Your task to perform on an android device: Go to location settings Image 0: 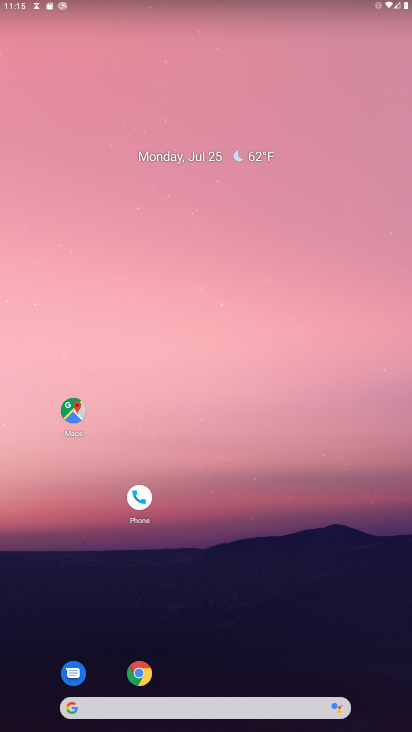
Step 0: press home button
Your task to perform on an android device: Go to location settings Image 1: 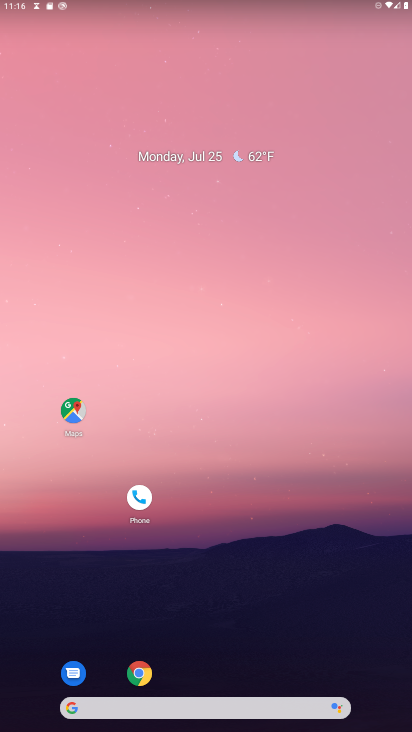
Step 1: drag from (228, 595) to (303, 37)
Your task to perform on an android device: Go to location settings Image 2: 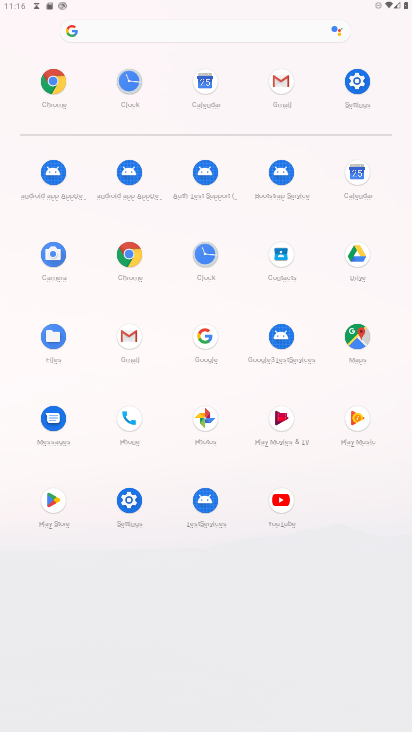
Step 2: click (348, 80)
Your task to perform on an android device: Go to location settings Image 3: 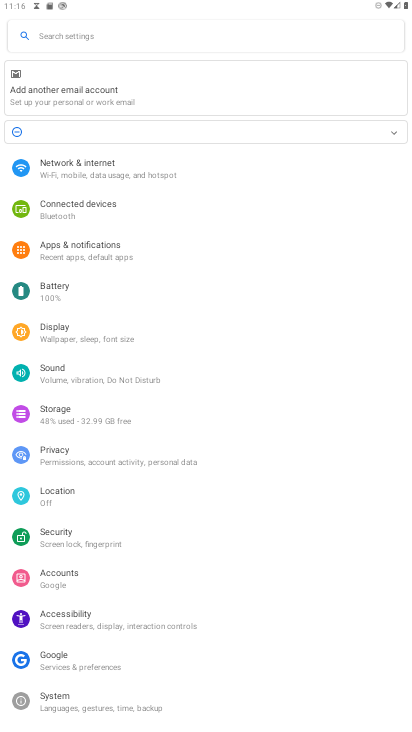
Step 3: click (81, 504)
Your task to perform on an android device: Go to location settings Image 4: 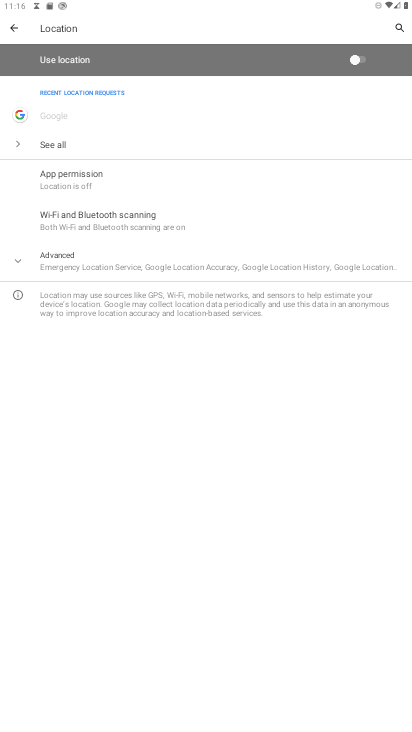
Step 4: task complete